Your task to perform on an android device: Go to Android settings Image 0: 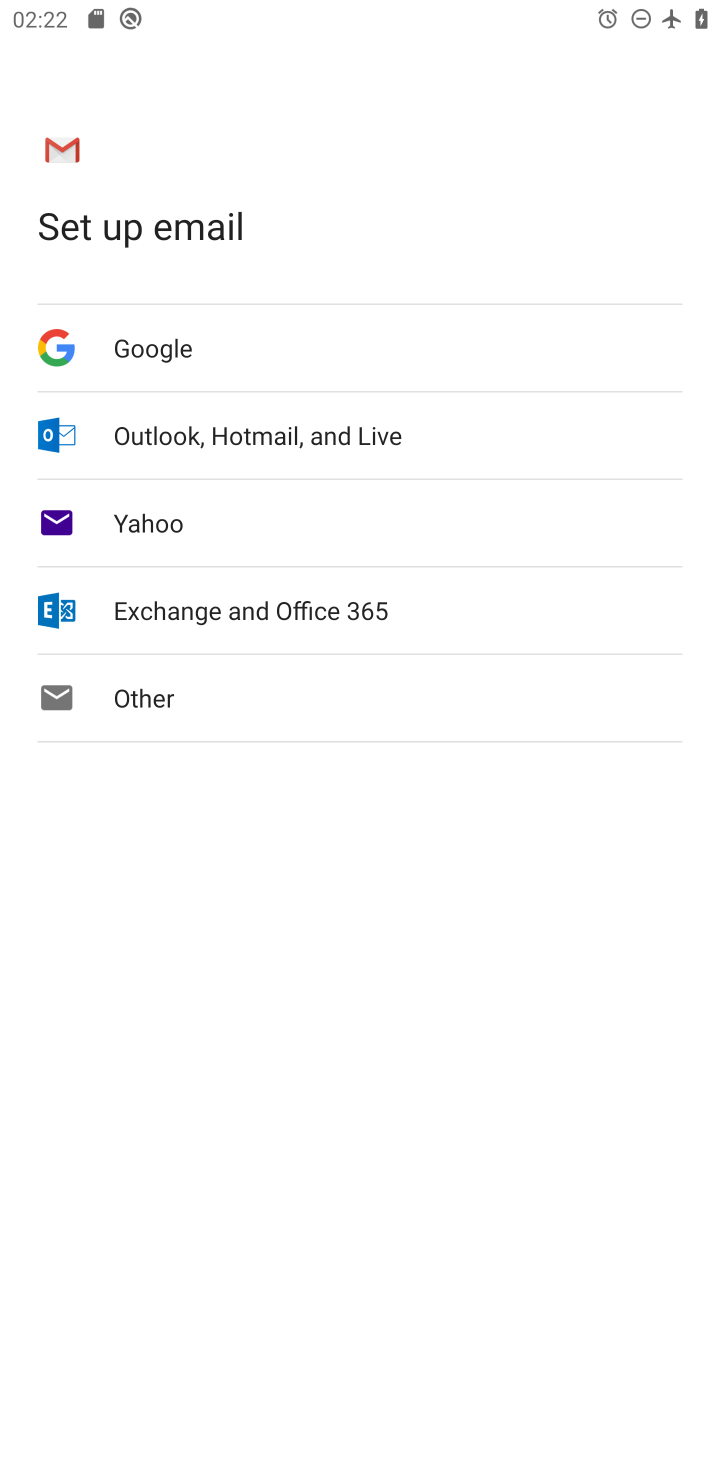
Step 0: press home button
Your task to perform on an android device: Go to Android settings Image 1: 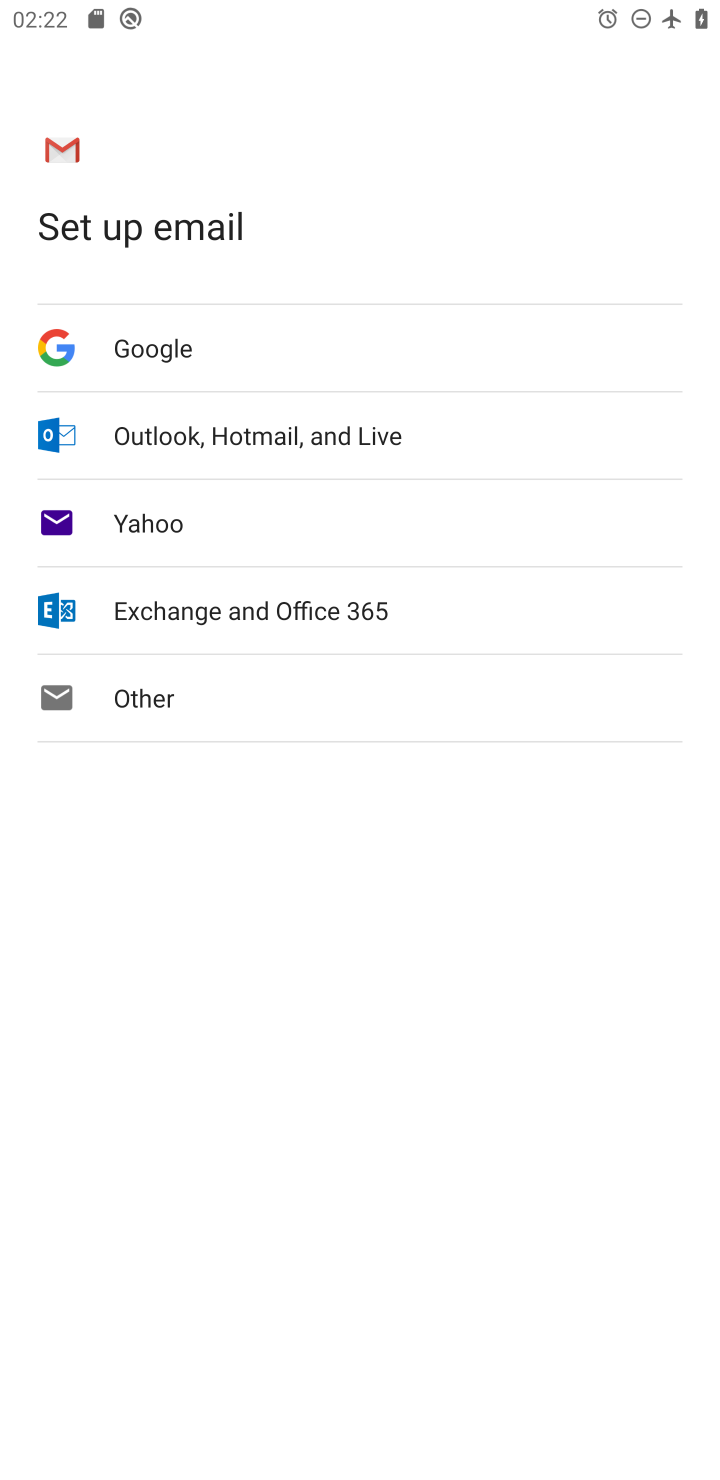
Step 1: press home button
Your task to perform on an android device: Go to Android settings Image 2: 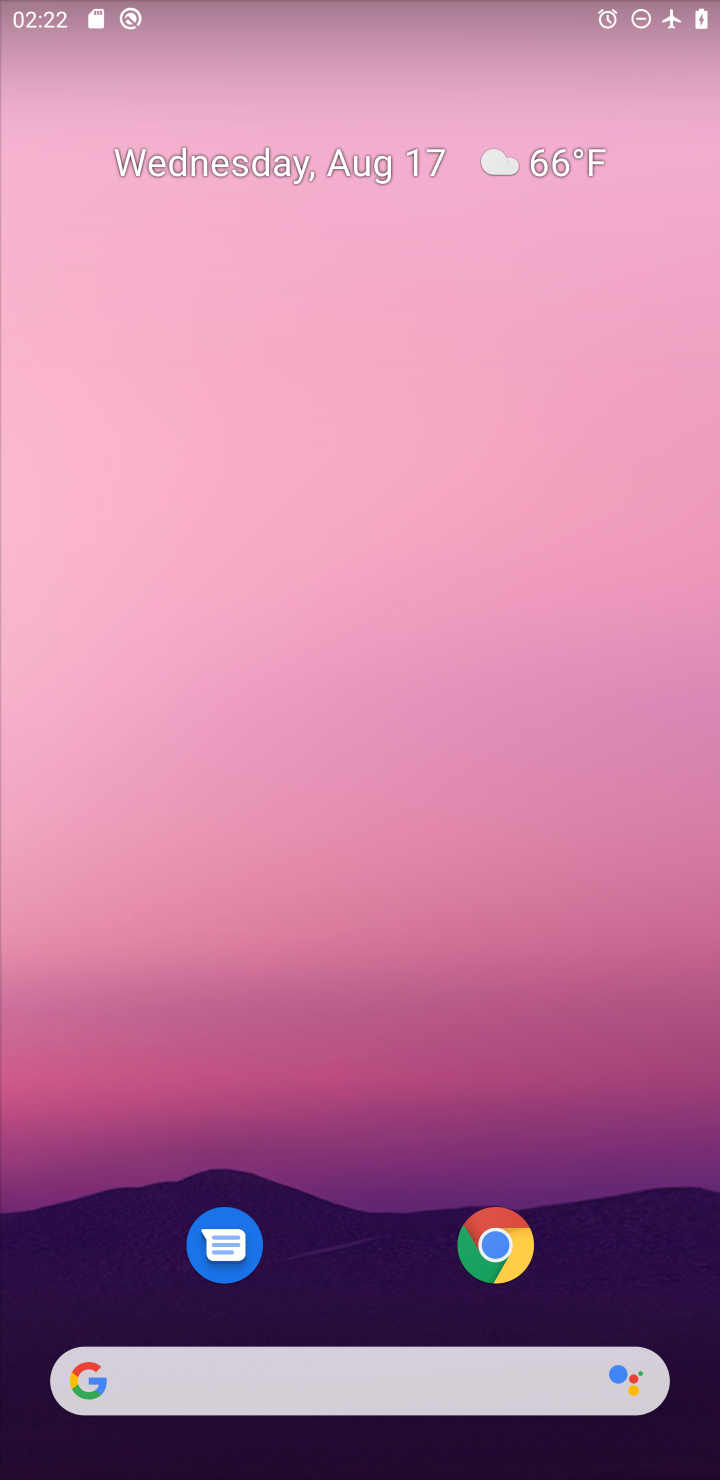
Step 2: drag from (417, 936) to (428, 161)
Your task to perform on an android device: Go to Android settings Image 3: 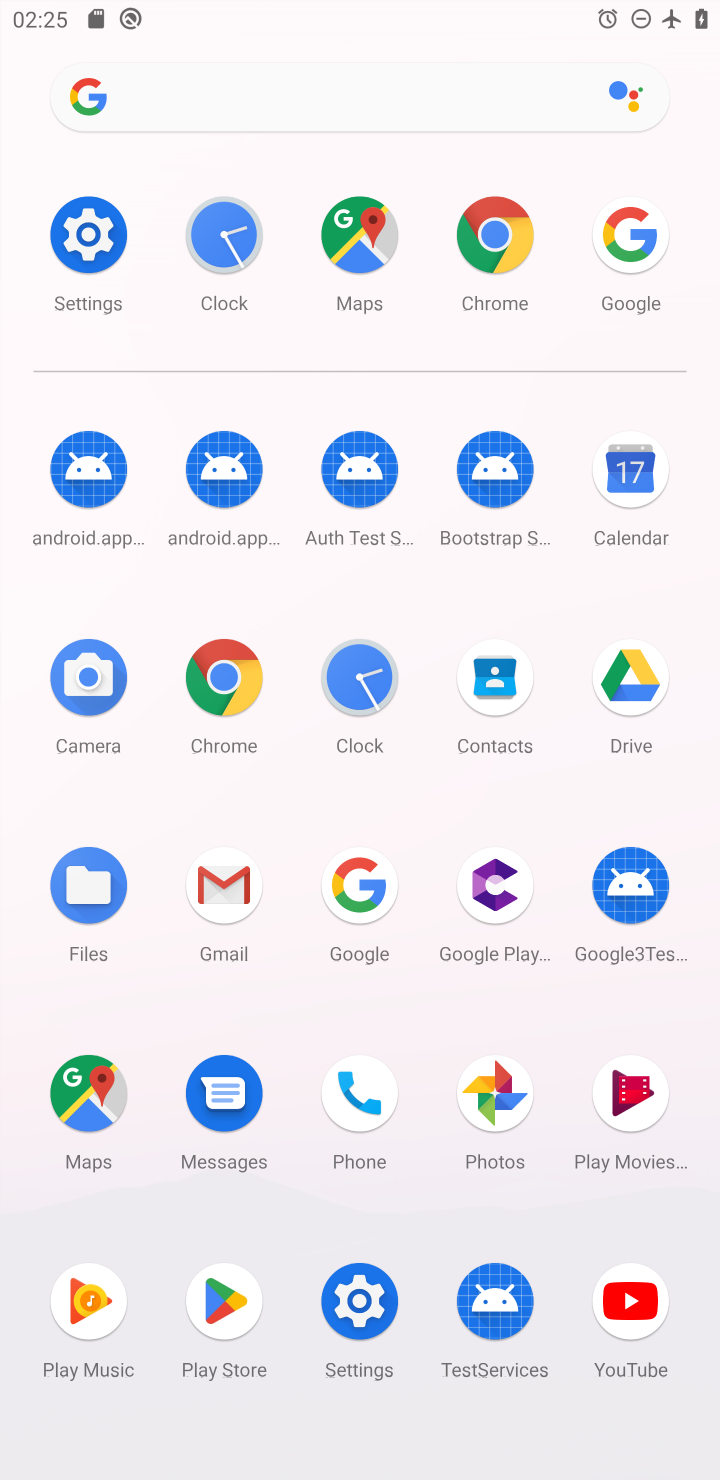
Step 3: click (370, 1296)
Your task to perform on an android device: Go to Android settings Image 4: 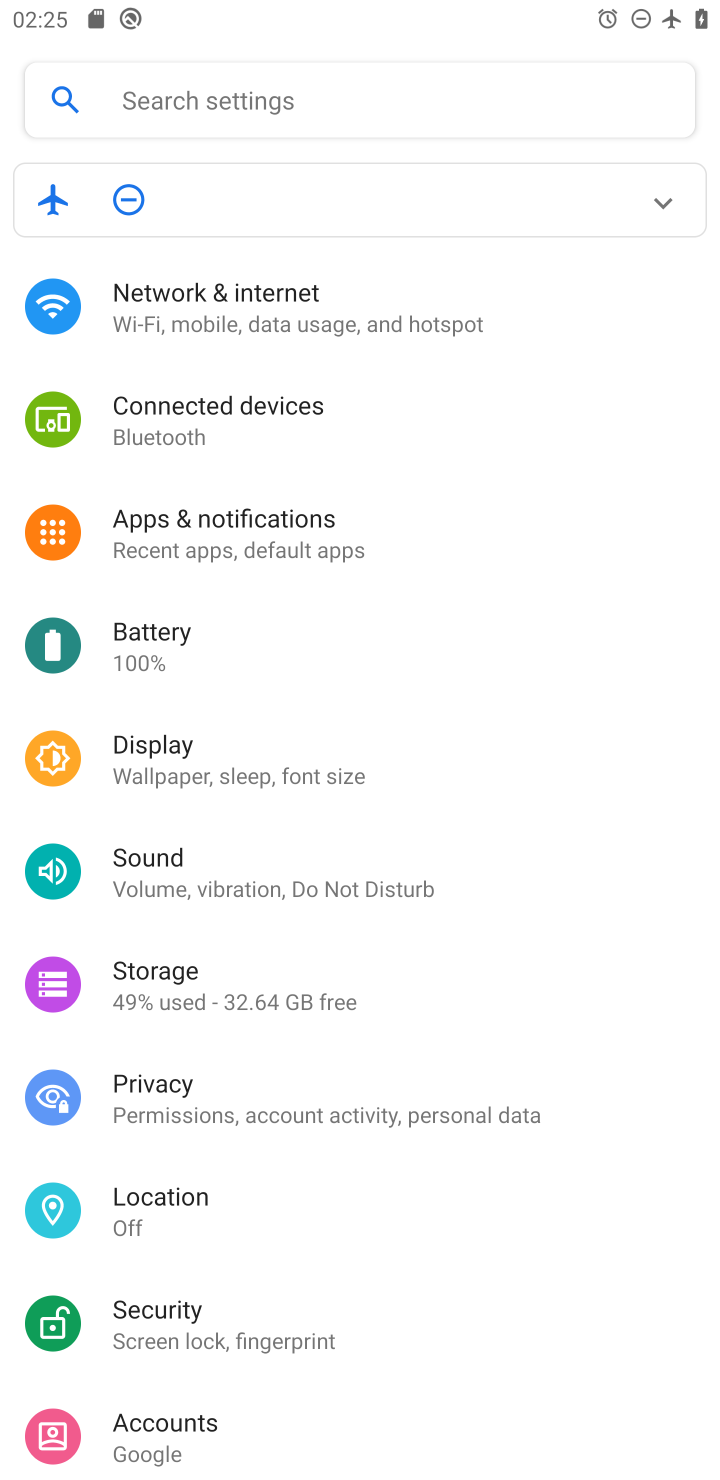
Step 4: task complete